Your task to perform on an android device: turn on wifi Image 0: 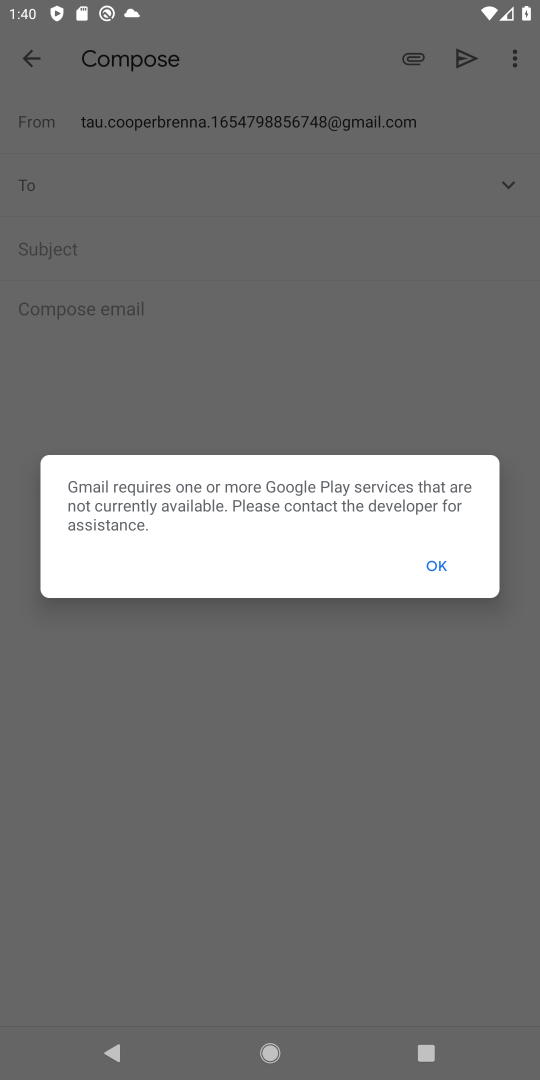
Step 0: click (437, 567)
Your task to perform on an android device: turn on wifi Image 1: 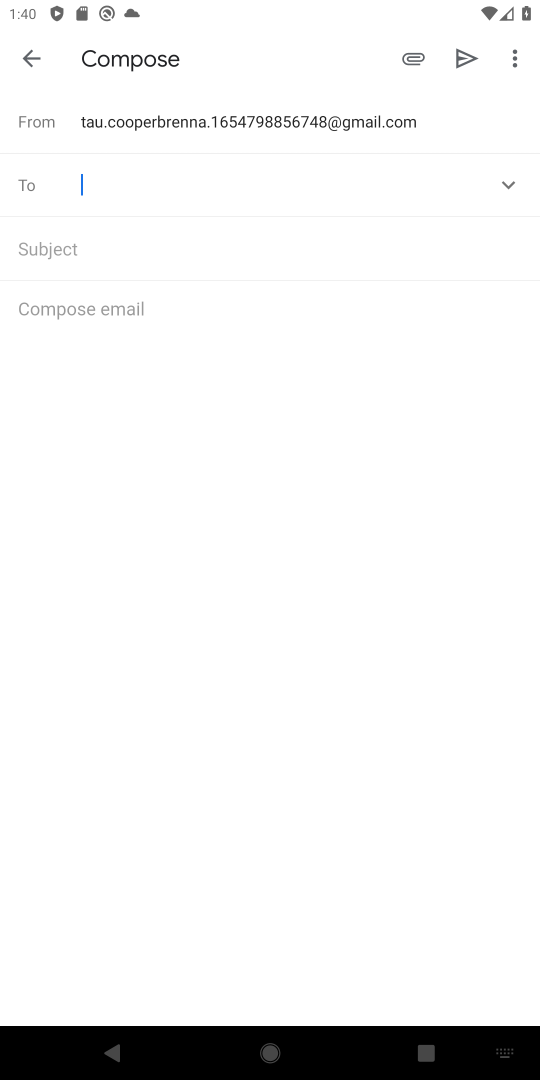
Step 1: task complete